Your task to perform on an android device: turn off data saver in the chrome app Image 0: 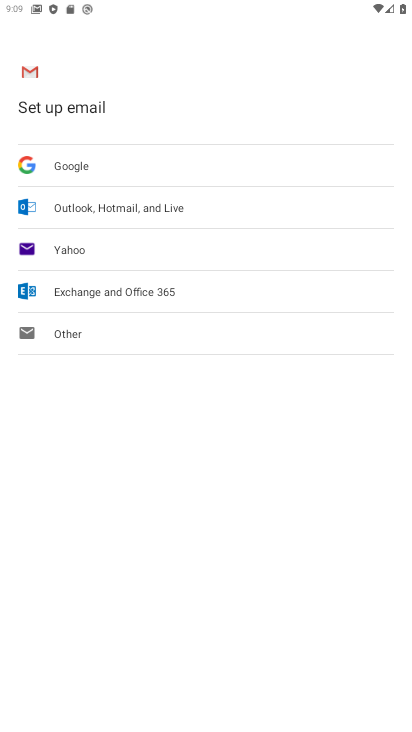
Step 0: press home button
Your task to perform on an android device: turn off data saver in the chrome app Image 1: 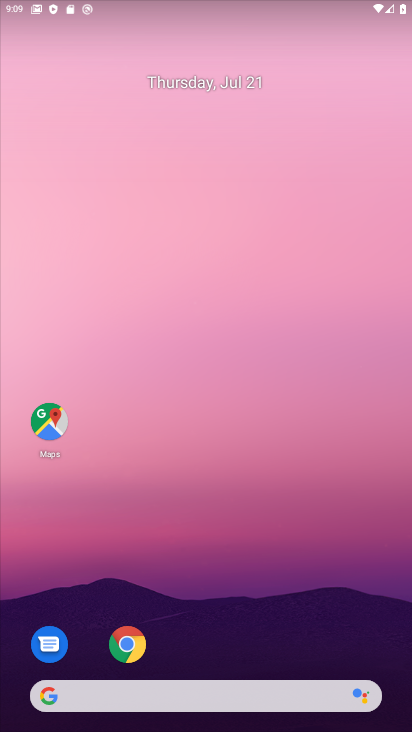
Step 1: drag from (206, 674) to (230, 148)
Your task to perform on an android device: turn off data saver in the chrome app Image 2: 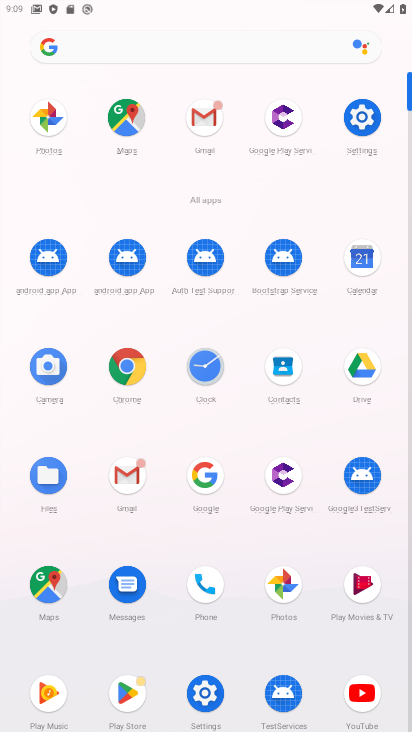
Step 2: click (128, 368)
Your task to perform on an android device: turn off data saver in the chrome app Image 3: 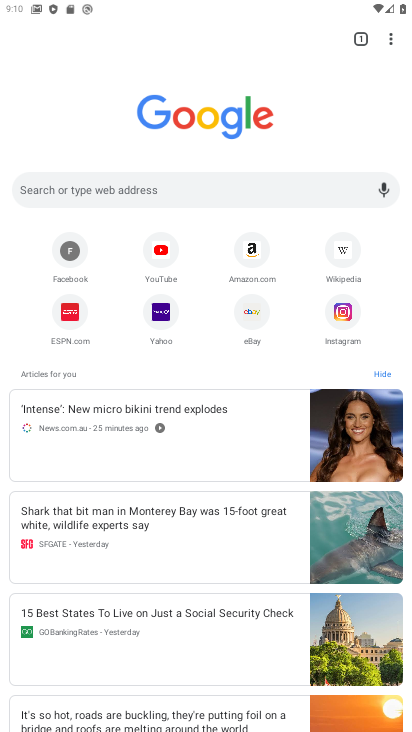
Step 3: click (386, 42)
Your task to perform on an android device: turn off data saver in the chrome app Image 4: 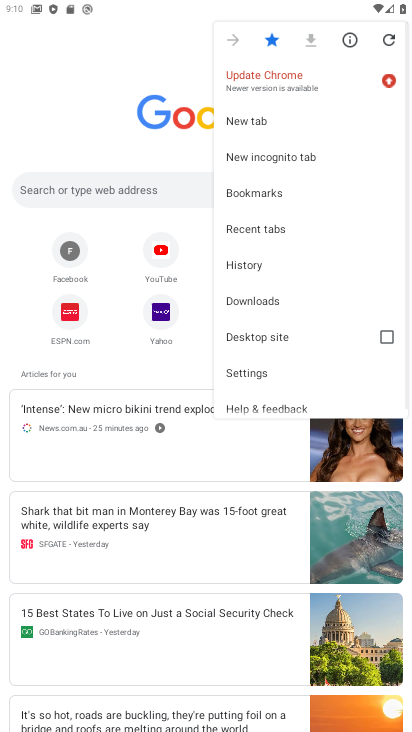
Step 4: click (260, 372)
Your task to perform on an android device: turn off data saver in the chrome app Image 5: 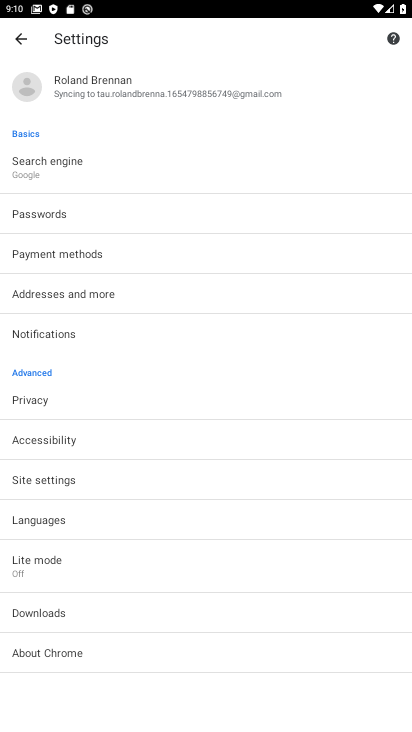
Step 5: click (40, 576)
Your task to perform on an android device: turn off data saver in the chrome app Image 6: 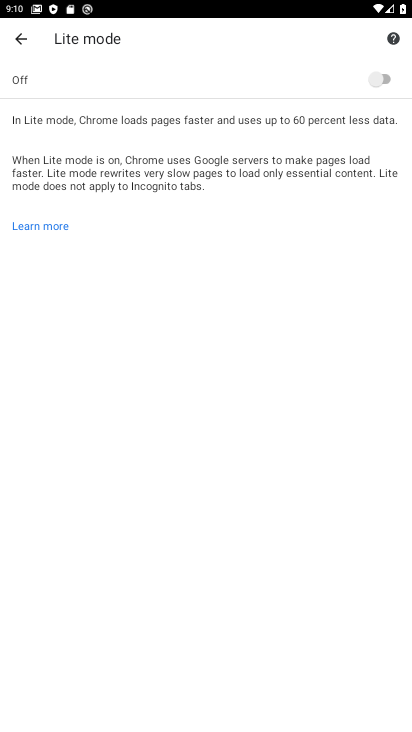
Step 6: task complete